Your task to perform on an android device: change the clock display to digital Image 0: 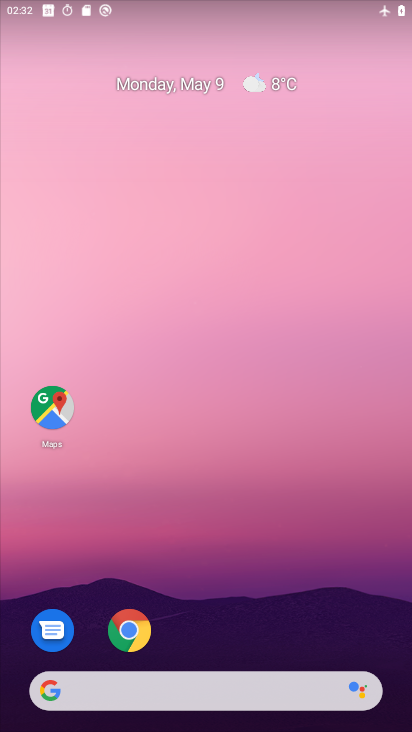
Step 0: drag from (246, 624) to (279, 117)
Your task to perform on an android device: change the clock display to digital Image 1: 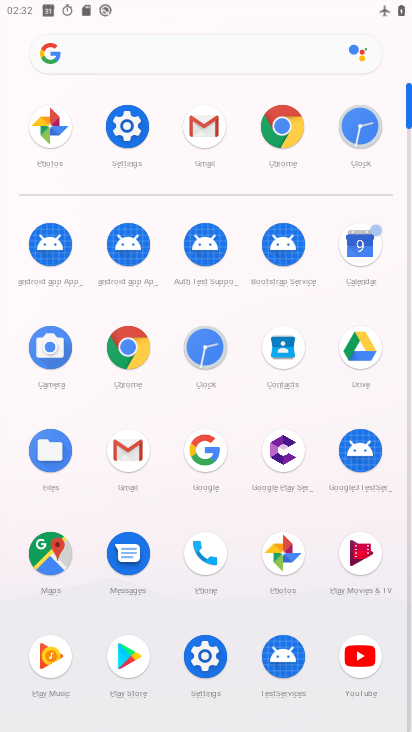
Step 1: click (216, 356)
Your task to perform on an android device: change the clock display to digital Image 2: 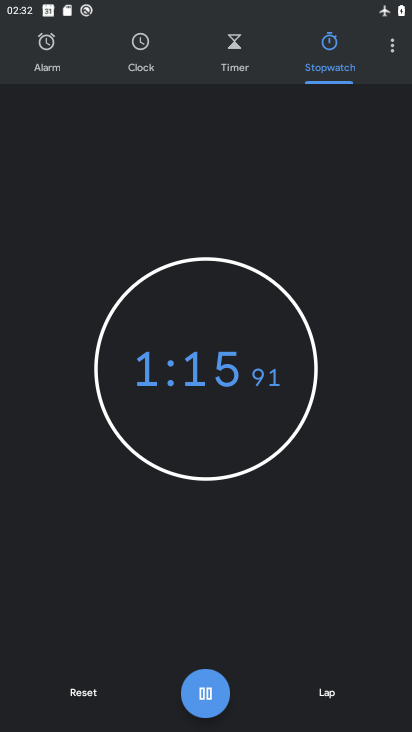
Step 2: click (90, 692)
Your task to perform on an android device: change the clock display to digital Image 3: 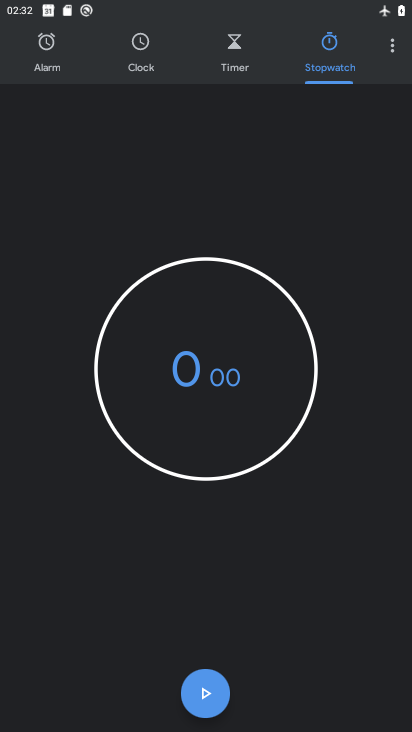
Step 3: click (394, 47)
Your task to perform on an android device: change the clock display to digital Image 4: 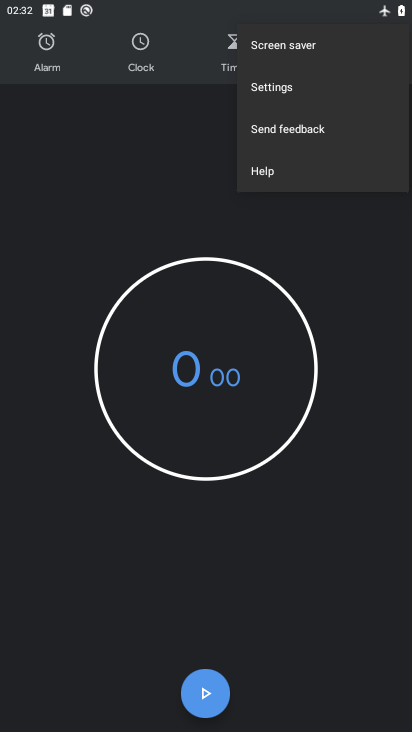
Step 4: click (277, 96)
Your task to perform on an android device: change the clock display to digital Image 5: 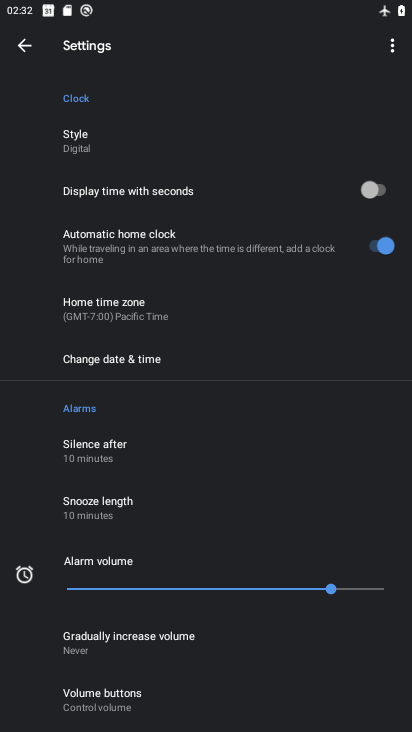
Step 5: task complete